Your task to perform on an android device: Go to eBay Image 0: 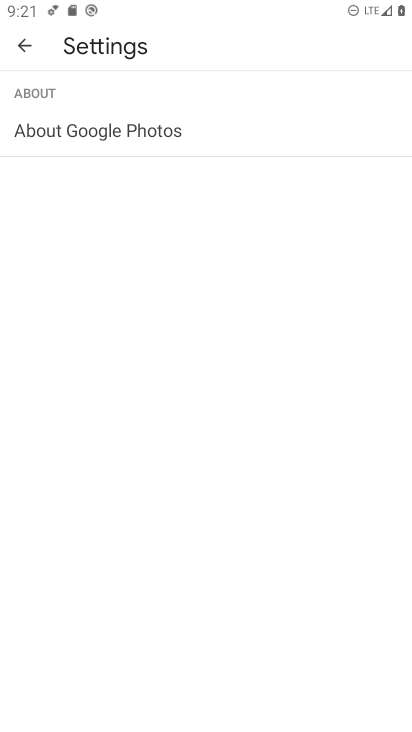
Step 0: press home button
Your task to perform on an android device: Go to eBay Image 1: 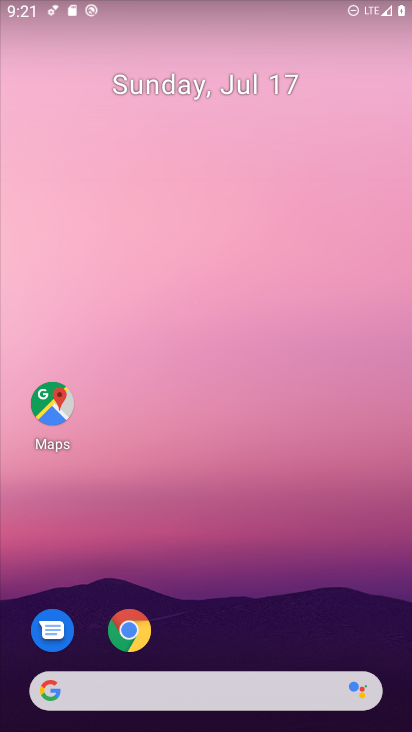
Step 1: drag from (238, 643) to (242, 188)
Your task to perform on an android device: Go to eBay Image 2: 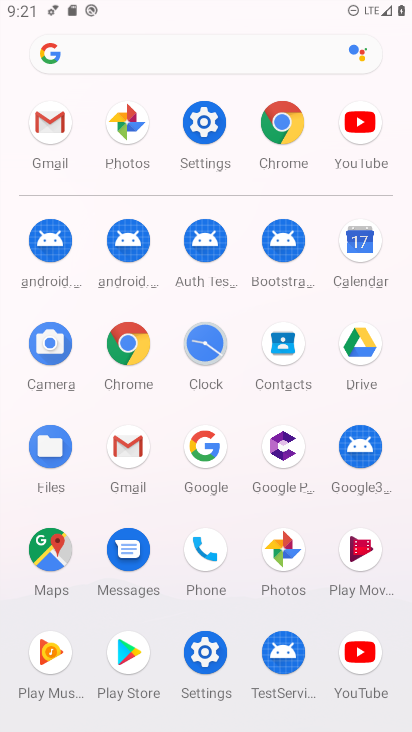
Step 2: click (119, 340)
Your task to perform on an android device: Go to eBay Image 3: 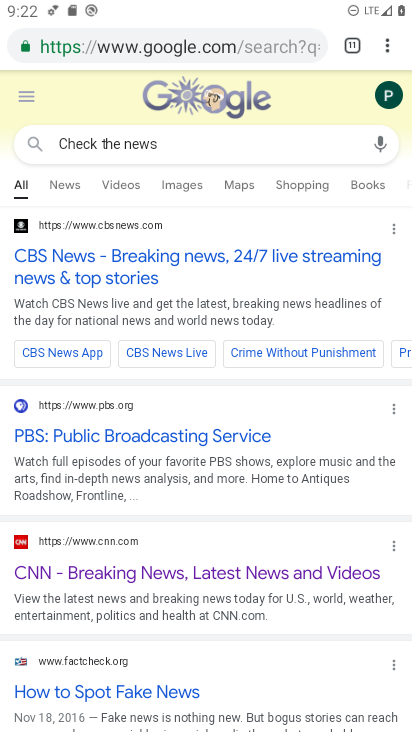
Step 3: click (393, 51)
Your task to perform on an android device: Go to eBay Image 4: 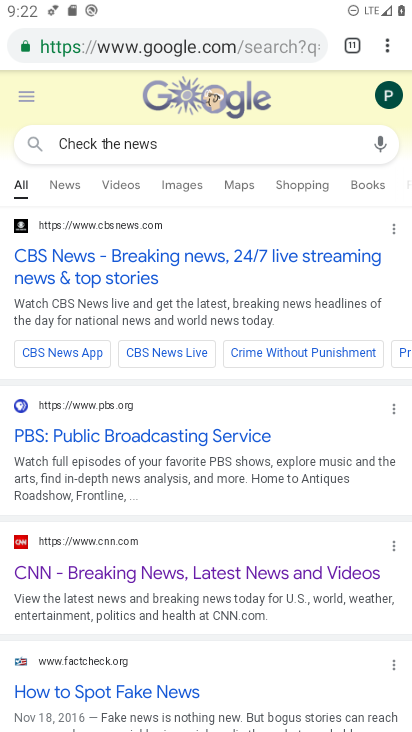
Step 4: click (389, 47)
Your task to perform on an android device: Go to eBay Image 5: 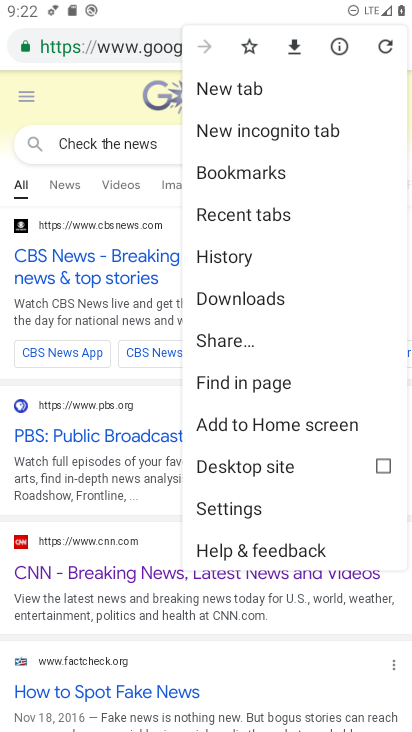
Step 5: click (266, 83)
Your task to perform on an android device: Go to eBay Image 6: 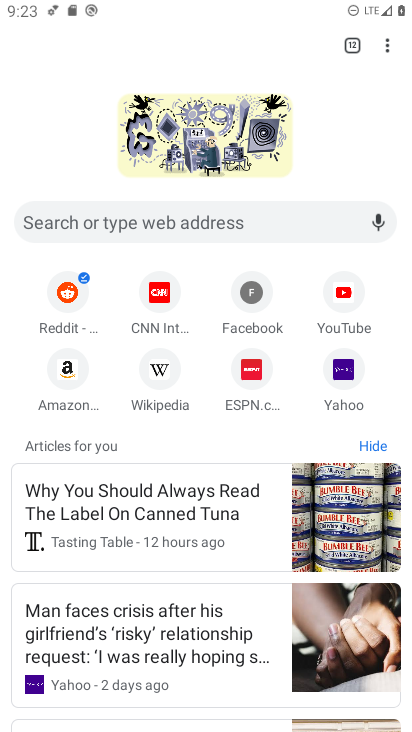
Step 6: click (225, 220)
Your task to perform on an android device: Go to eBay Image 7: 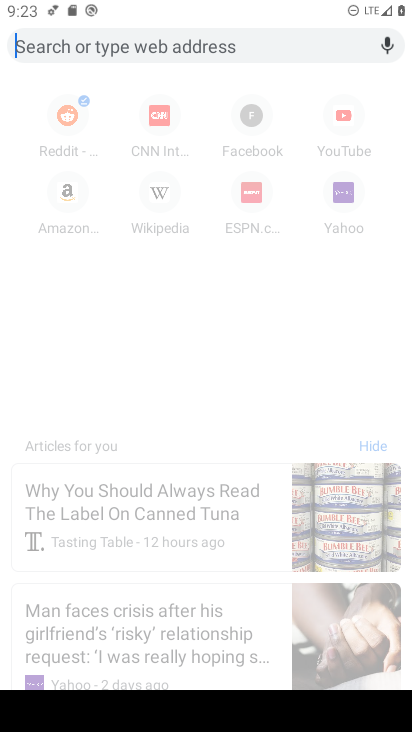
Step 7: type "ebay "
Your task to perform on an android device: Go to eBay Image 8: 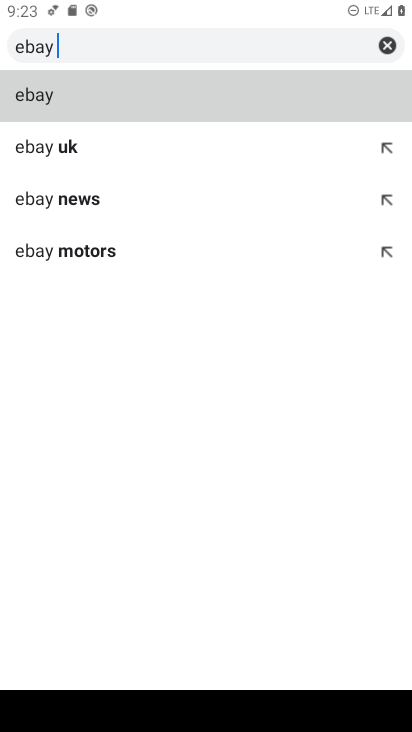
Step 8: click (128, 82)
Your task to perform on an android device: Go to eBay Image 9: 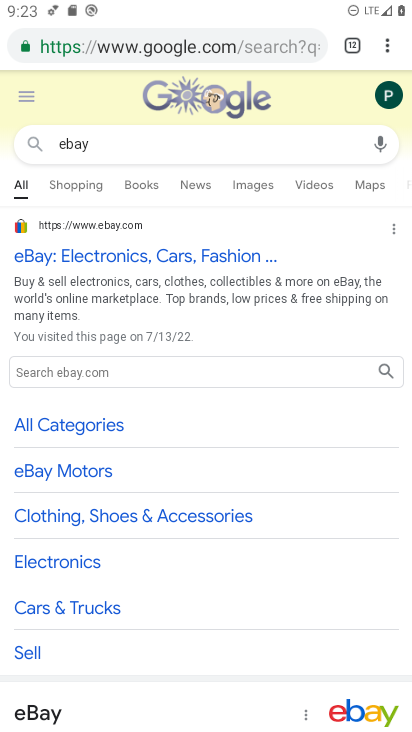
Step 9: task complete